Your task to perform on an android device: allow notifications from all sites in the chrome app Image 0: 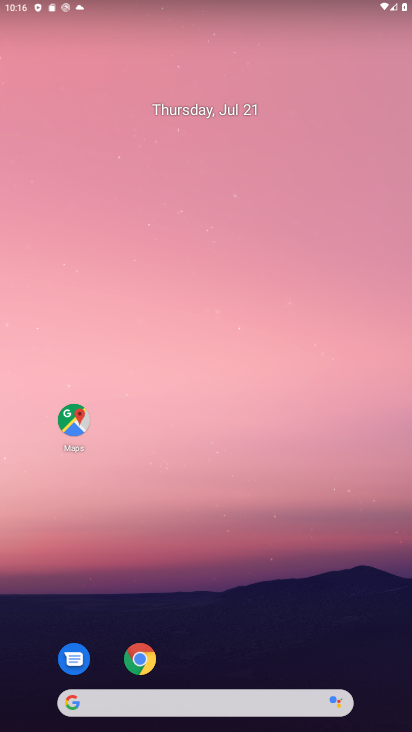
Step 0: click (134, 672)
Your task to perform on an android device: allow notifications from all sites in the chrome app Image 1: 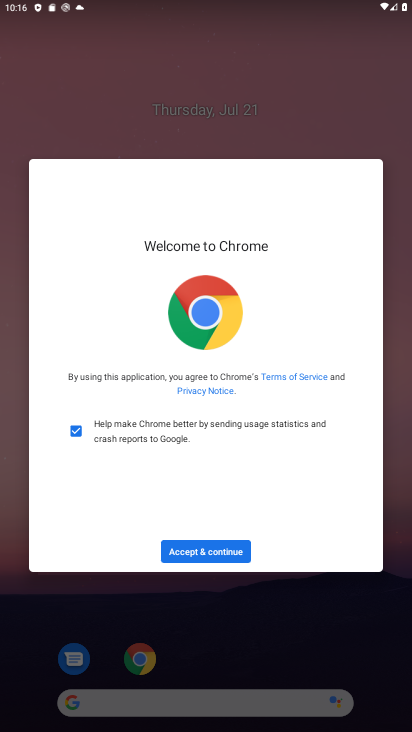
Step 1: click (181, 552)
Your task to perform on an android device: allow notifications from all sites in the chrome app Image 2: 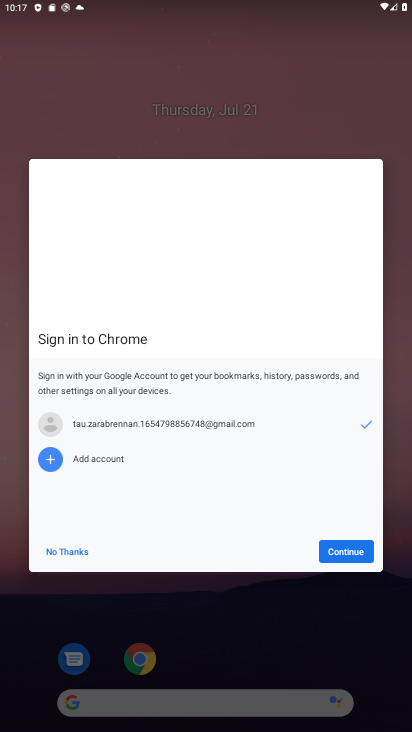
Step 2: task complete